Your task to perform on an android device: Go to Android settings Image 0: 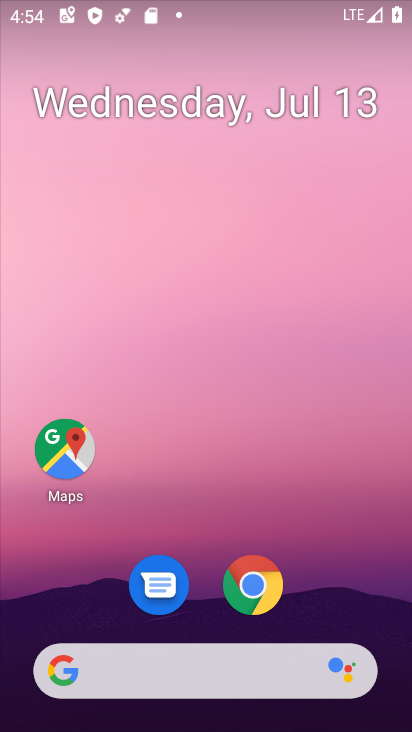
Step 0: drag from (338, 519) to (312, 66)
Your task to perform on an android device: Go to Android settings Image 1: 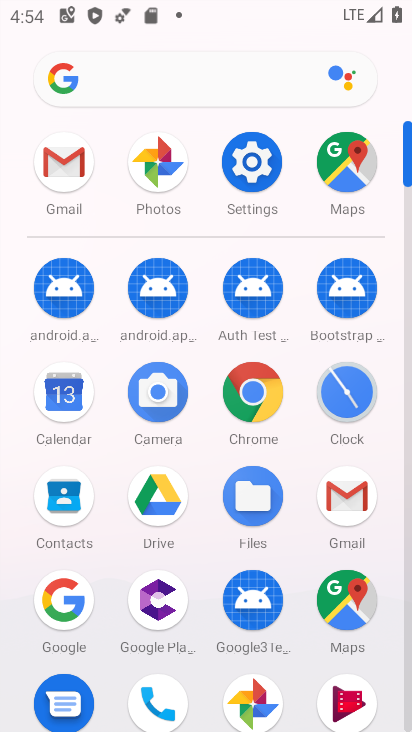
Step 1: click (260, 168)
Your task to perform on an android device: Go to Android settings Image 2: 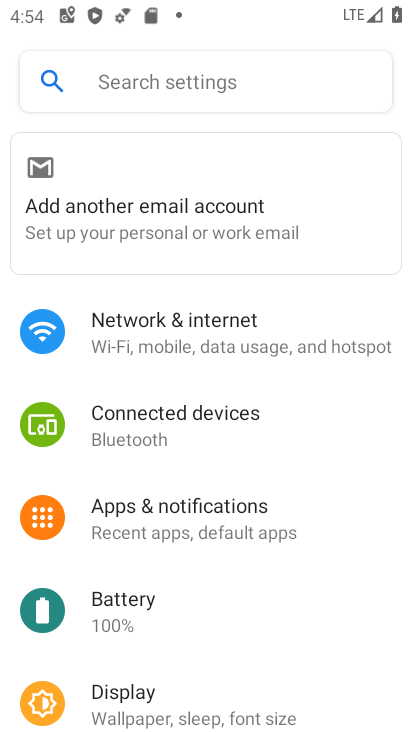
Step 2: drag from (218, 635) to (230, 43)
Your task to perform on an android device: Go to Android settings Image 3: 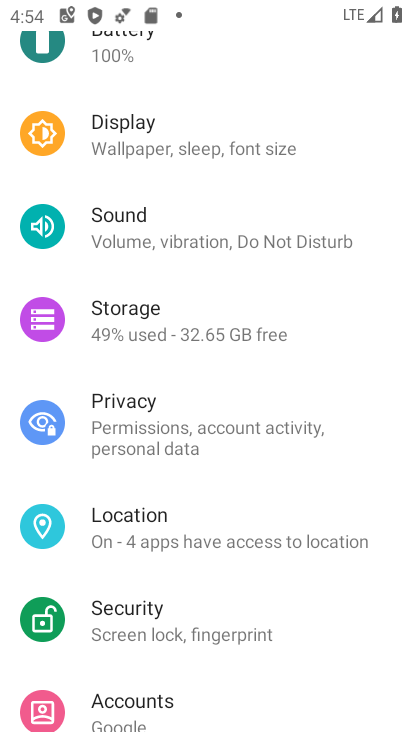
Step 3: drag from (215, 604) to (264, 85)
Your task to perform on an android device: Go to Android settings Image 4: 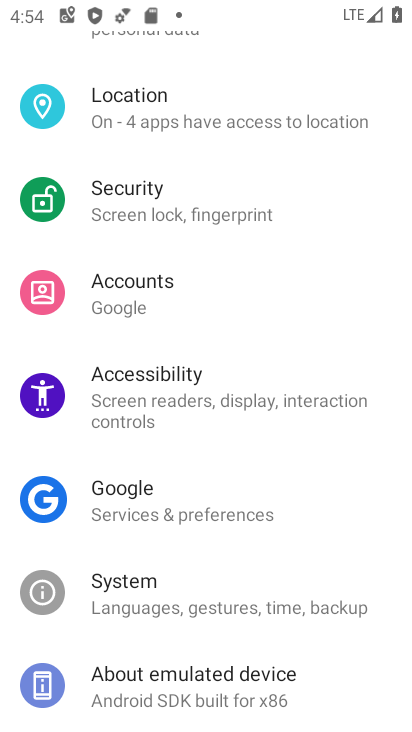
Step 4: click (218, 683)
Your task to perform on an android device: Go to Android settings Image 5: 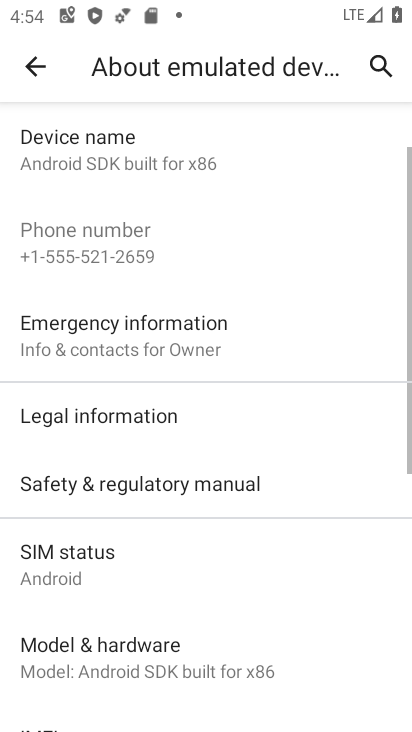
Step 5: task complete